Your task to perform on an android device: change notification settings in the gmail app Image 0: 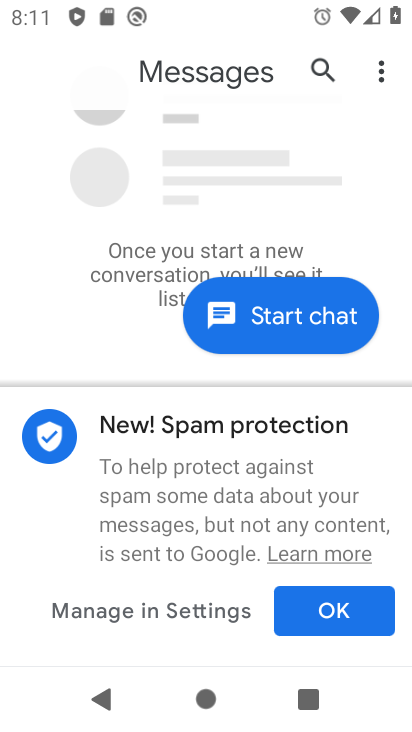
Step 0: press home button
Your task to perform on an android device: change notification settings in the gmail app Image 1: 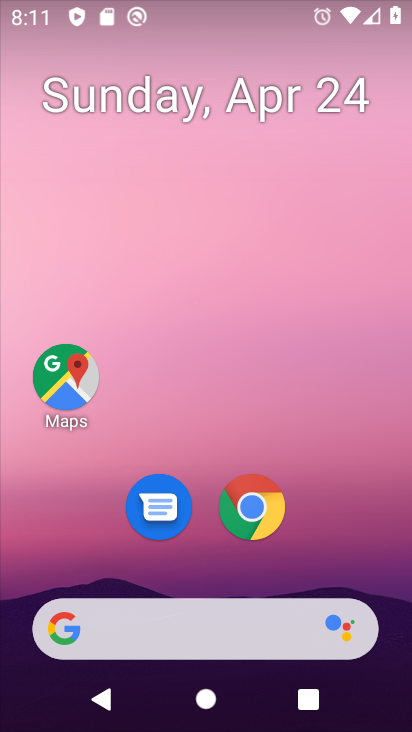
Step 1: drag from (369, 567) to (300, 189)
Your task to perform on an android device: change notification settings in the gmail app Image 2: 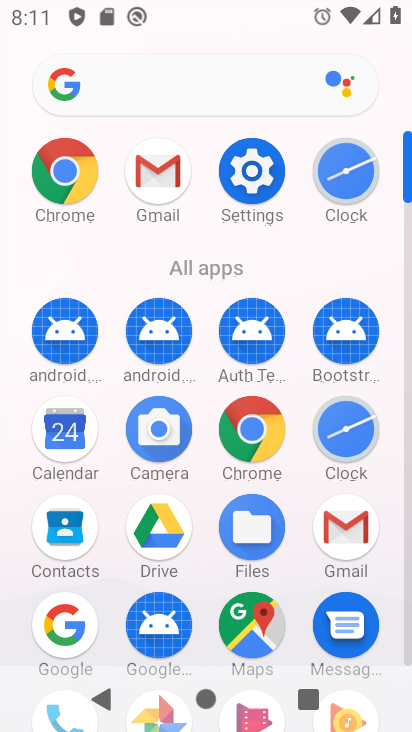
Step 2: click (163, 181)
Your task to perform on an android device: change notification settings in the gmail app Image 3: 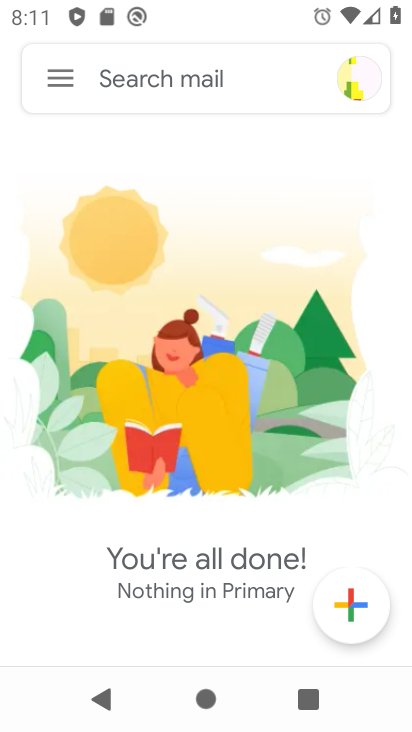
Step 3: click (56, 65)
Your task to perform on an android device: change notification settings in the gmail app Image 4: 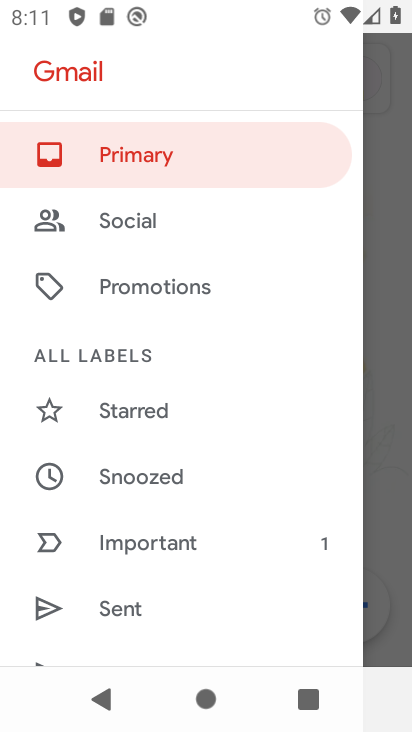
Step 4: drag from (260, 591) to (145, 200)
Your task to perform on an android device: change notification settings in the gmail app Image 5: 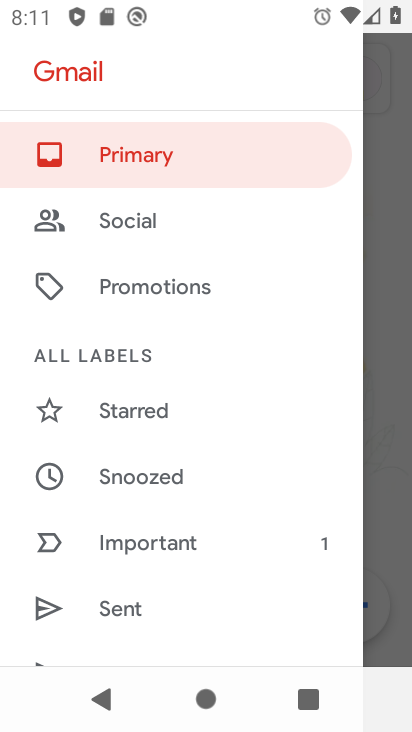
Step 5: drag from (282, 568) to (297, 241)
Your task to perform on an android device: change notification settings in the gmail app Image 6: 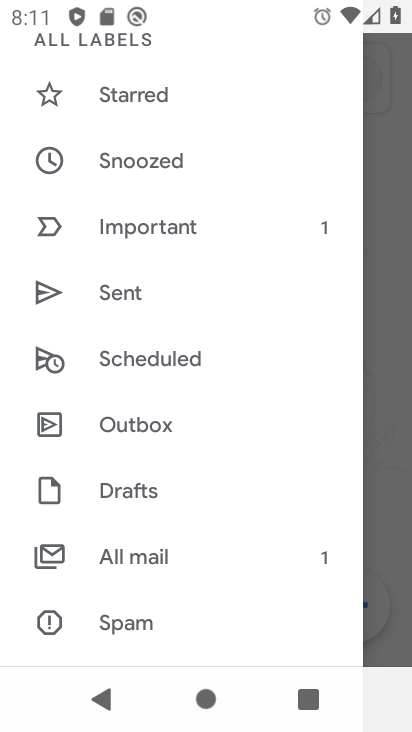
Step 6: drag from (279, 585) to (301, 183)
Your task to perform on an android device: change notification settings in the gmail app Image 7: 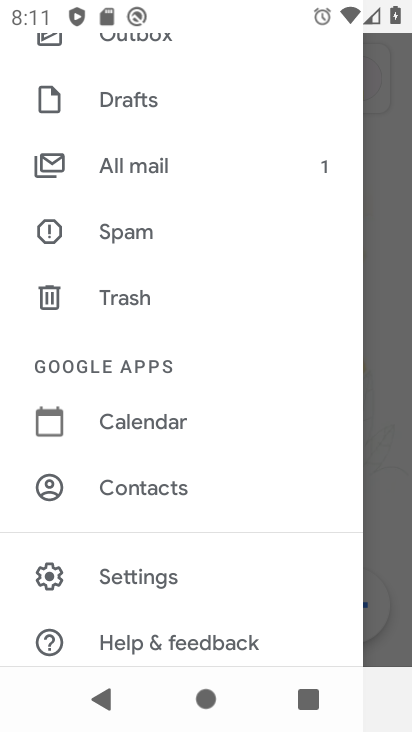
Step 7: click (292, 583)
Your task to perform on an android device: change notification settings in the gmail app Image 8: 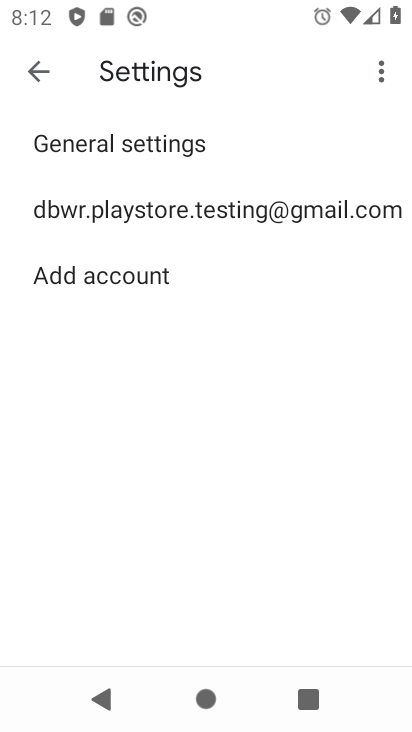
Step 8: click (353, 218)
Your task to perform on an android device: change notification settings in the gmail app Image 9: 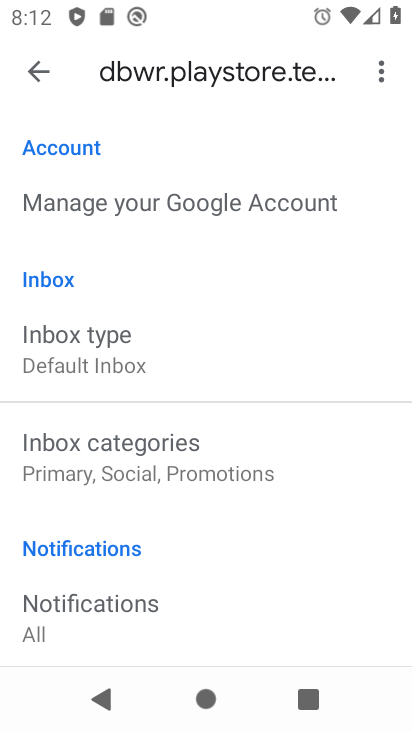
Step 9: drag from (252, 557) to (219, 220)
Your task to perform on an android device: change notification settings in the gmail app Image 10: 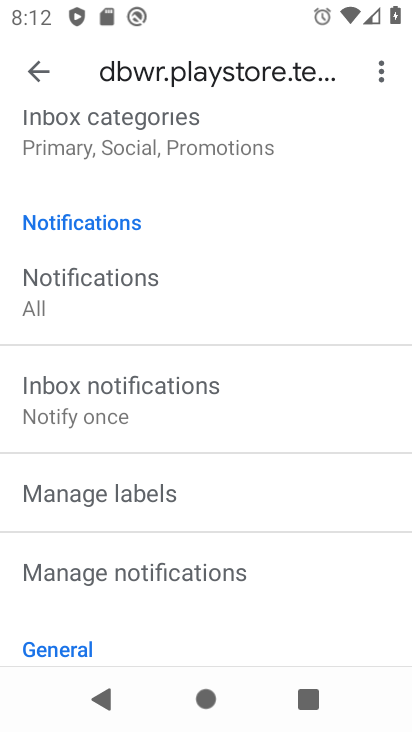
Step 10: click (232, 569)
Your task to perform on an android device: change notification settings in the gmail app Image 11: 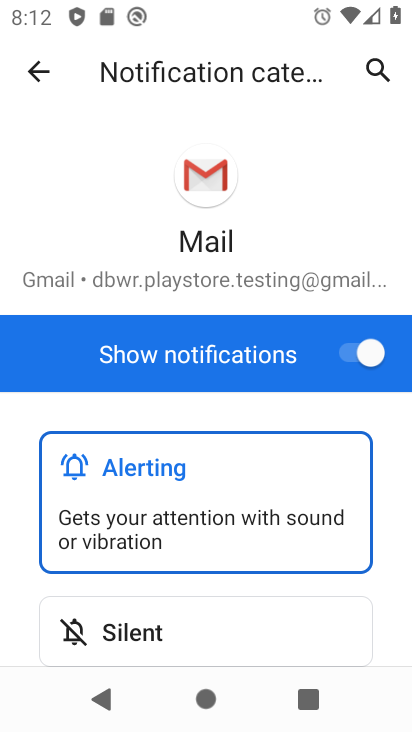
Step 11: drag from (403, 623) to (373, 450)
Your task to perform on an android device: change notification settings in the gmail app Image 12: 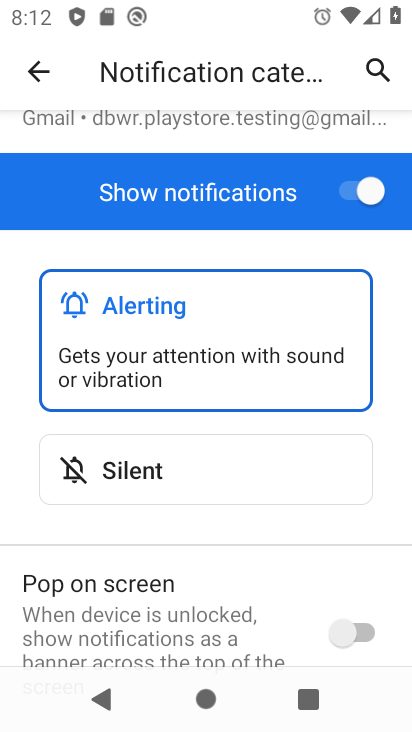
Step 12: click (341, 459)
Your task to perform on an android device: change notification settings in the gmail app Image 13: 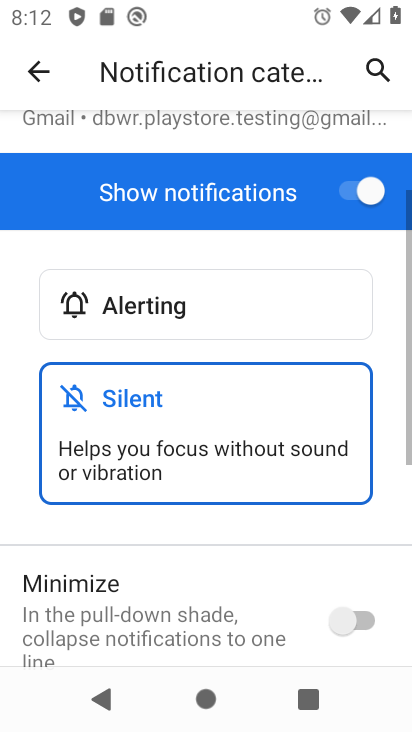
Step 13: drag from (398, 532) to (375, 337)
Your task to perform on an android device: change notification settings in the gmail app Image 14: 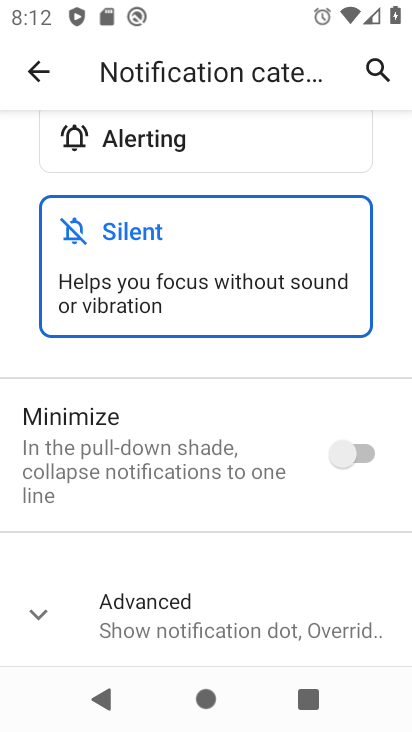
Step 14: click (354, 458)
Your task to perform on an android device: change notification settings in the gmail app Image 15: 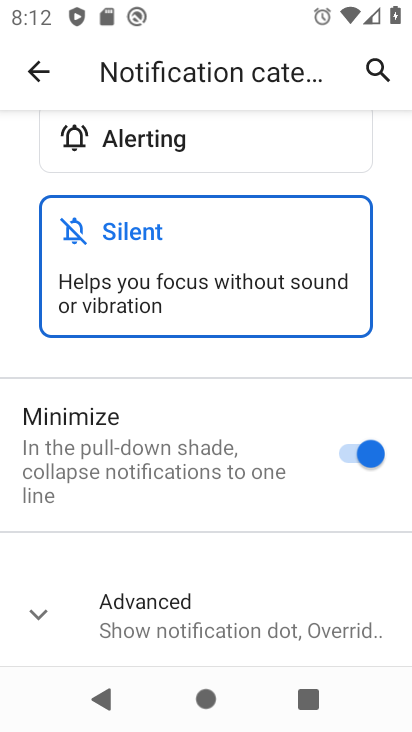
Step 15: task complete